Your task to perform on an android device: Show the shopping cart on newegg. Add "usb-c to usb-b" to the cart on newegg Image 0: 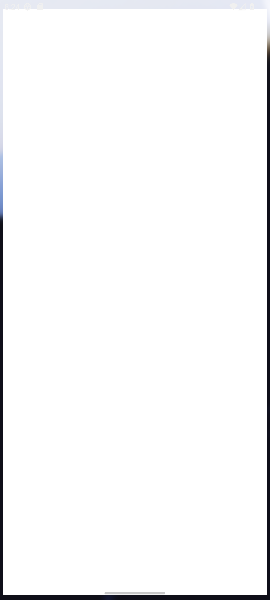
Step 0: click (174, 511)
Your task to perform on an android device: Show the shopping cart on newegg. Add "usb-c to usb-b" to the cart on newegg Image 1: 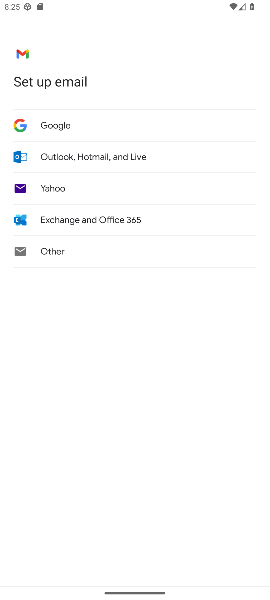
Step 1: press home button
Your task to perform on an android device: Show the shopping cart on newegg. Add "usb-c to usb-b" to the cart on newegg Image 2: 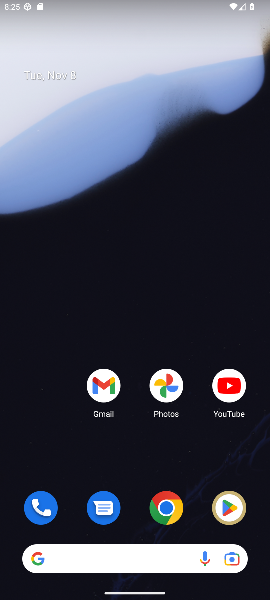
Step 2: click (163, 501)
Your task to perform on an android device: Show the shopping cart on newegg. Add "usb-c to usb-b" to the cart on newegg Image 3: 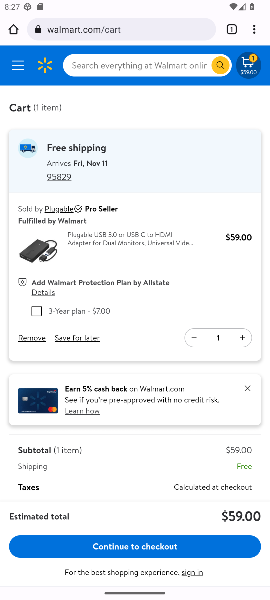
Step 3: task complete